Your task to perform on an android device: Open location settings Image 0: 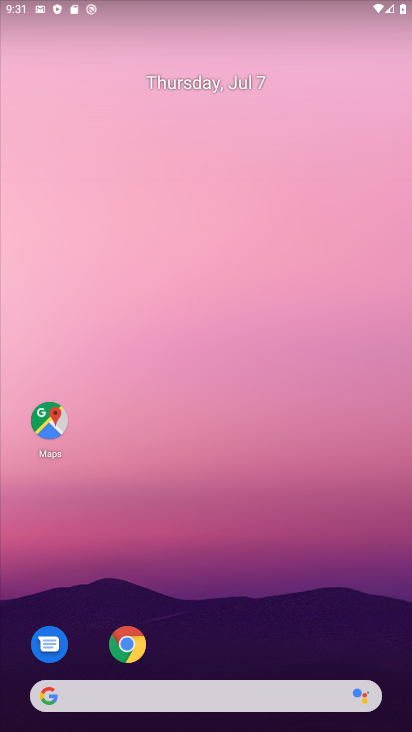
Step 0: drag from (186, 545) to (236, 154)
Your task to perform on an android device: Open location settings Image 1: 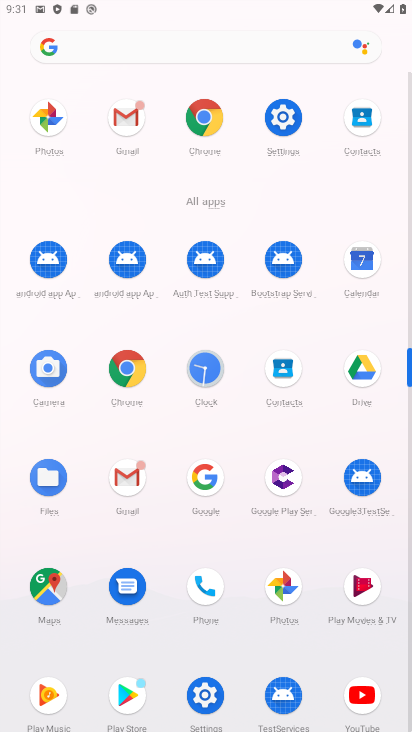
Step 1: click (284, 117)
Your task to perform on an android device: Open location settings Image 2: 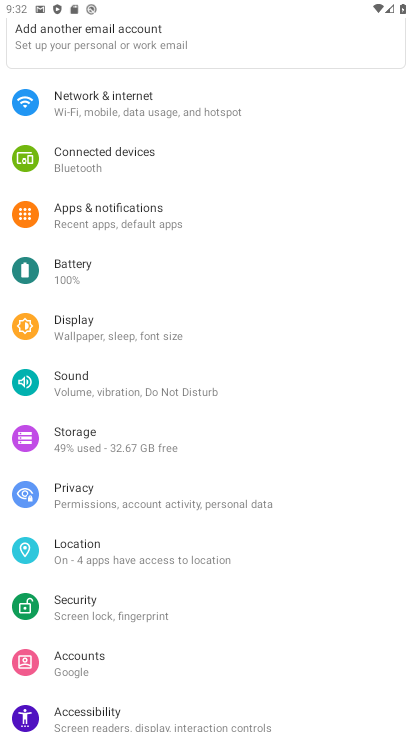
Step 2: click (75, 567)
Your task to perform on an android device: Open location settings Image 3: 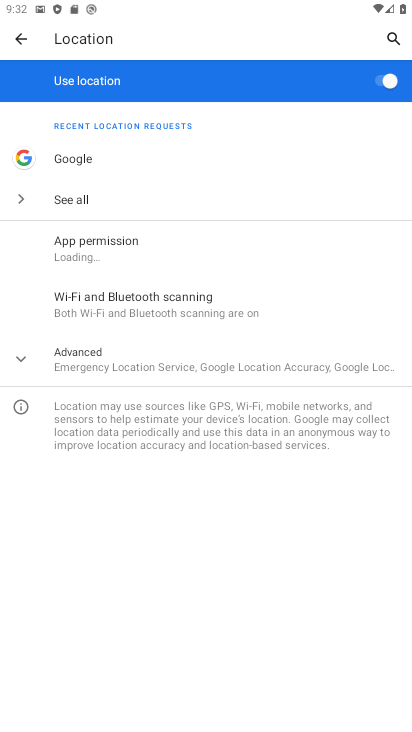
Step 3: task complete